Your task to perform on an android device: Search for flights from NYC to San Diego Image 0: 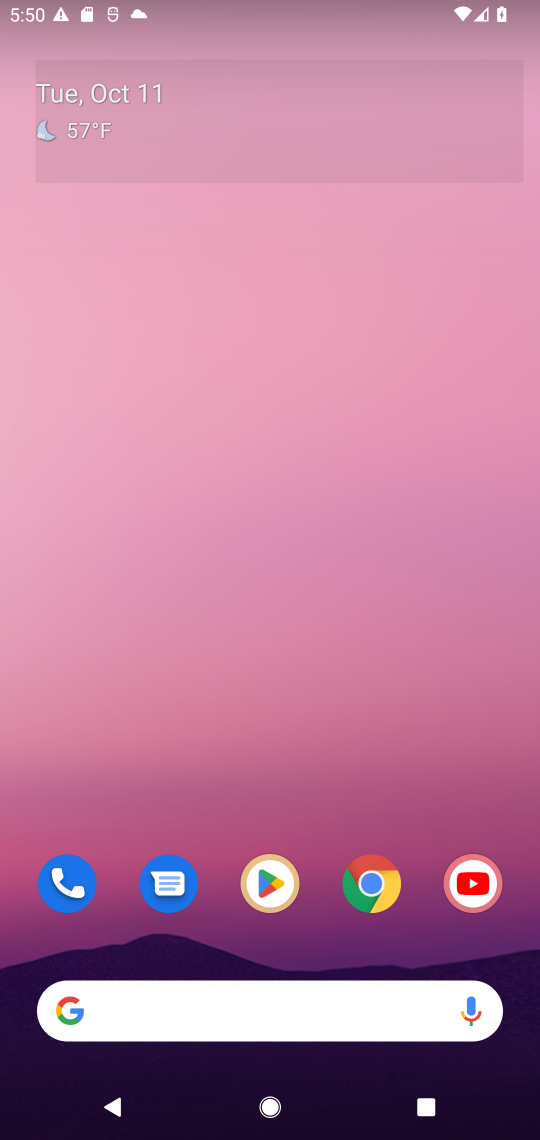
Step 0: drag from (312, 937) to (264, 160)
Your task to perform on an android device: Search for flights from NYC to San Diego Image 1: 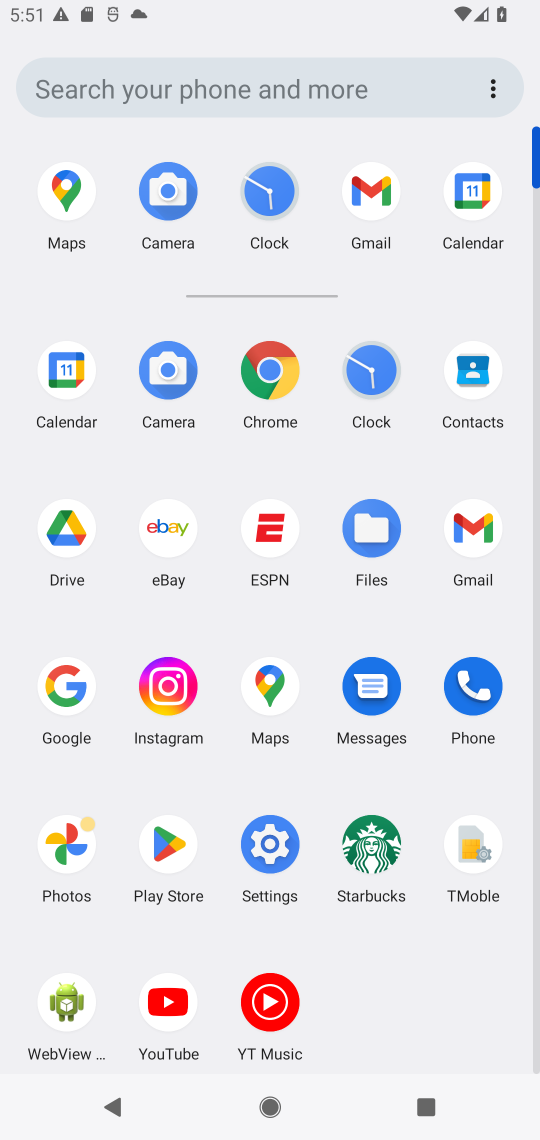
Step 1: click (276, 372)
Your task to perform on an android device: Search for flights from NYC to San Diego Image 2: 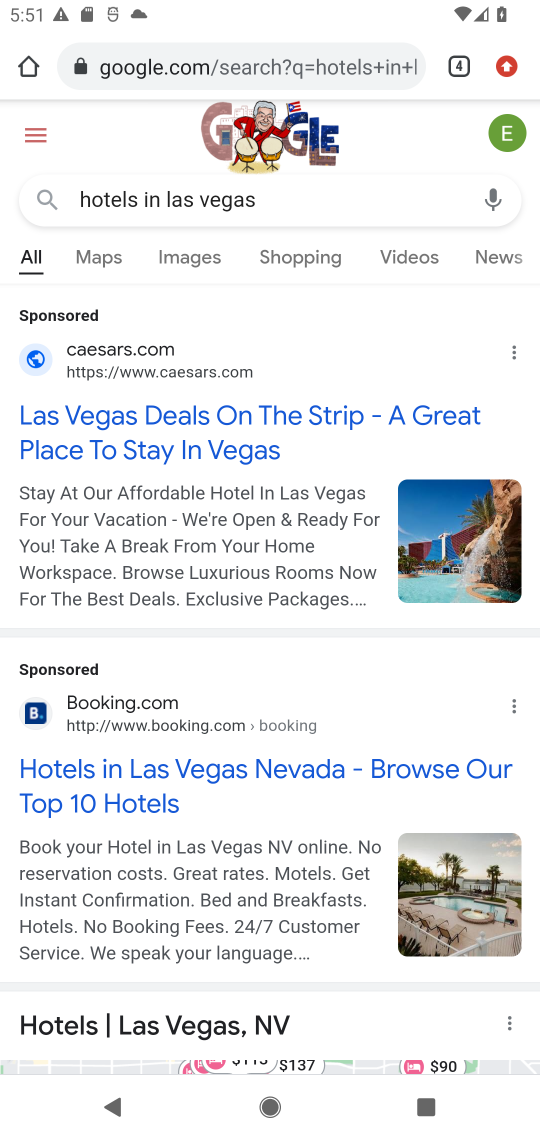
Step 2: click (267, 75)
Your task to perform on an android device: Search for flights from NYC to San Diego Image 3: 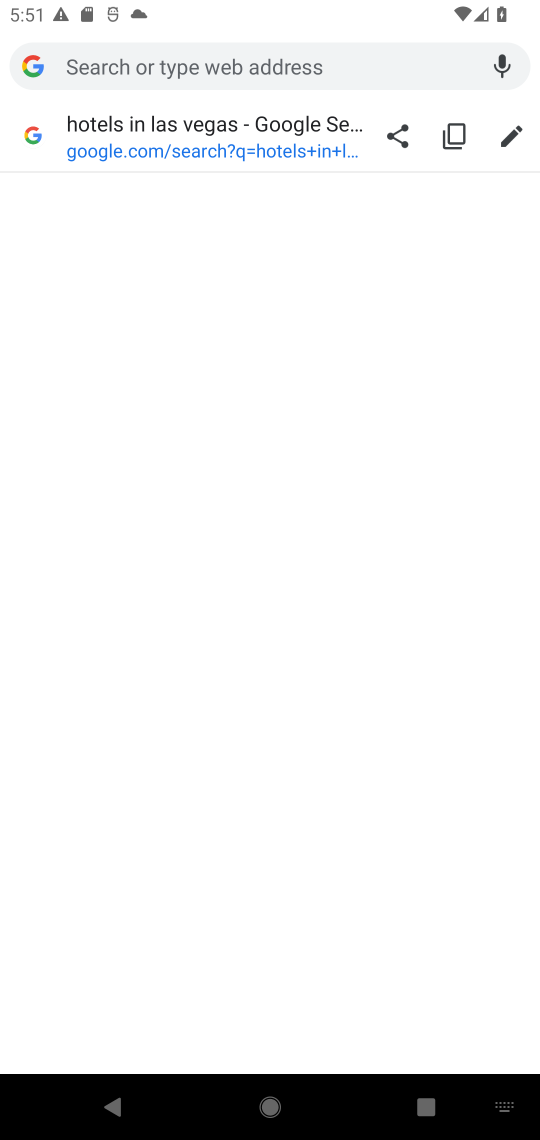
Step 3: type "flights from NYC to San Diego"
Your task to perform on an android device: Search for flights from NYC to San Diego Image 4: 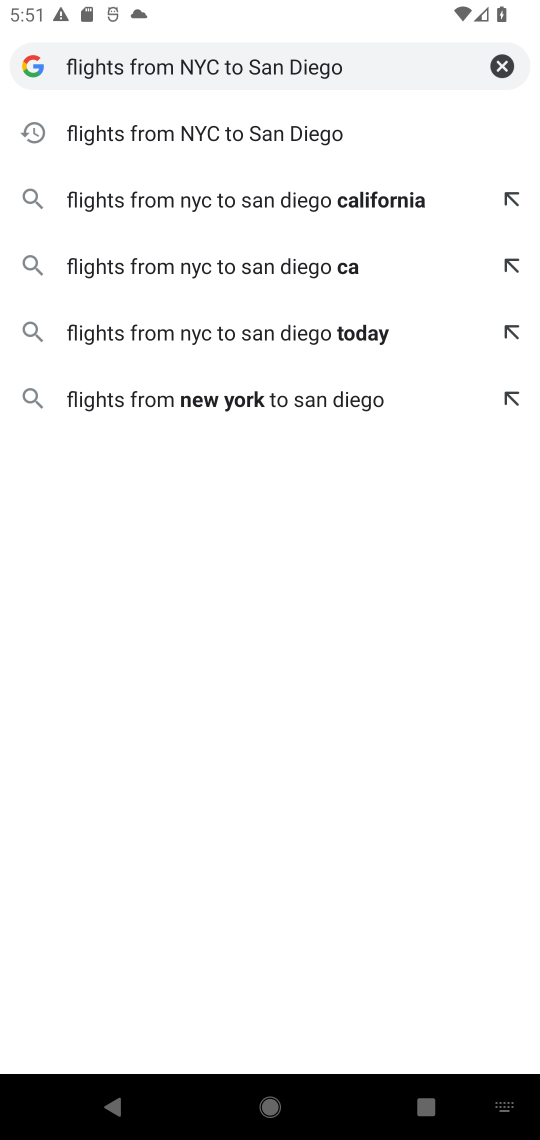
Step 4: press enter
Your task to perform on an android device: Search for flights from NYC to San Diego Image 5: 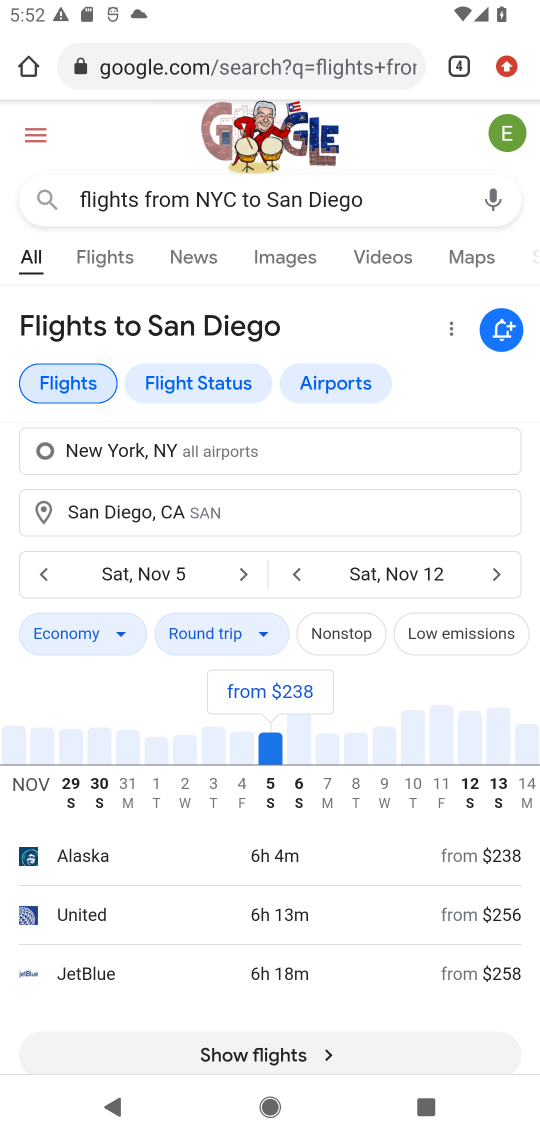
Step 5: task complete